Your task to perform on an android device: Open Google Chrome and click the shortcut for Amazon.com Image 0: 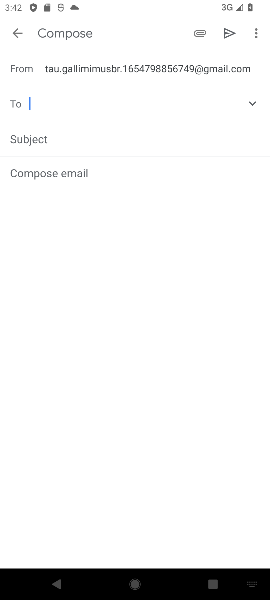
Step 0: press home button
Your task to perform on an android device: Open Google Chrome and click the shortcut for Amazon.com Image 1: 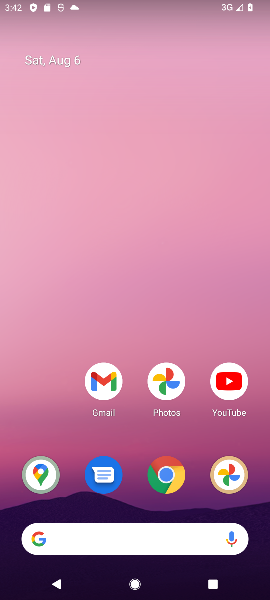
Step 1: click (168, 474)
Your task to perform on an android device: Open Google Chrome and click the shortcut for Amazon.com Image 2: 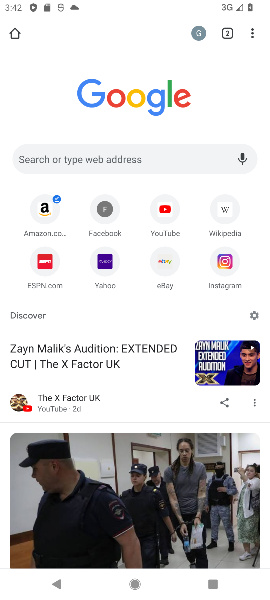
Step 2: click (37, 208)
Your task to perform on an android device: Open Google Chrome and click the shortcut for Amazon.com Image 3: 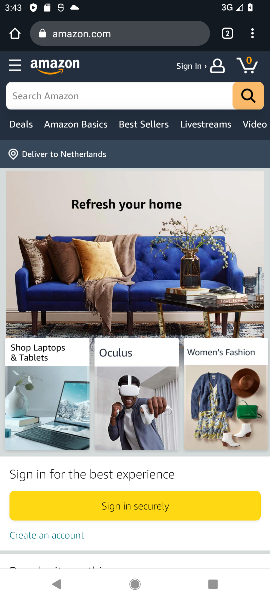
Step 3: task complete